Your task to perform on an android device: turn off translation in the chrome app Image 0: 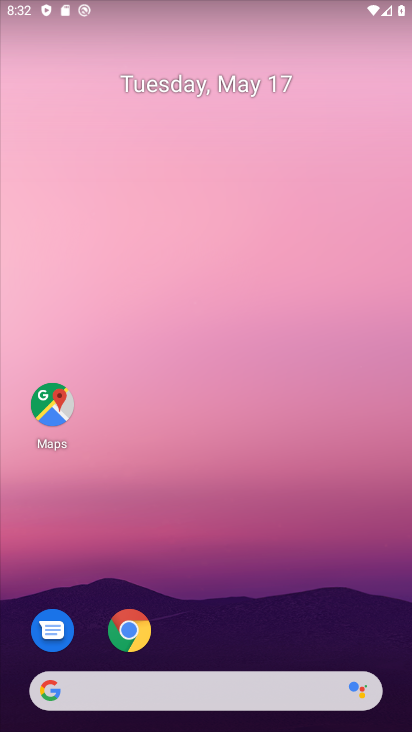
Step 0: click (261, 311)
Your task to perform on an android device: turn off translation in the chrome app Image 1: 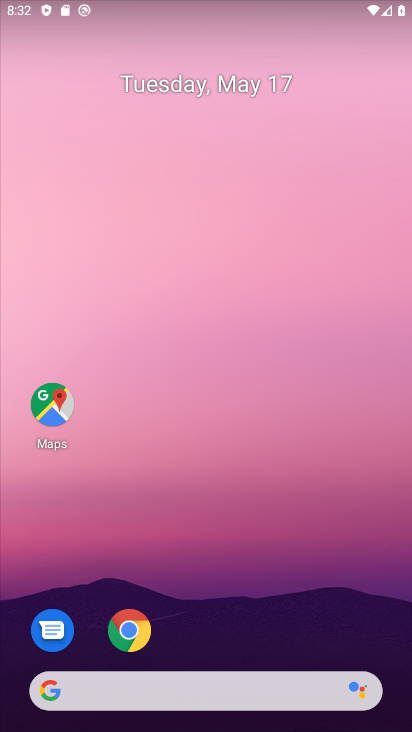
Step 1: drag from (229, 554) to (276, 176)
Your task to perform on an android device: turn off translation in the chrome app Image 2: 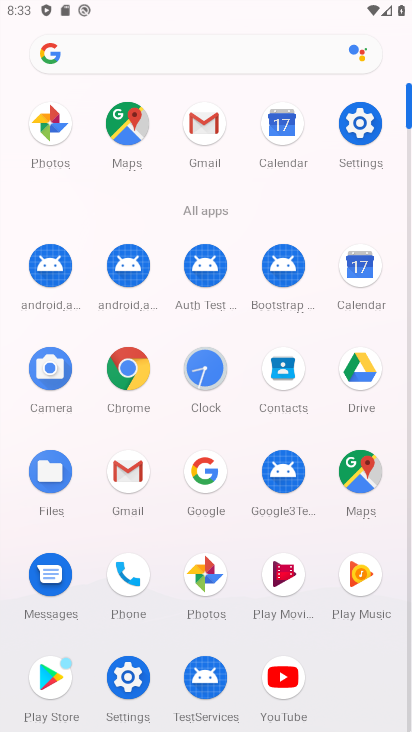
Step 2: click (119, 410)
Your task to perform on an android device: turn off translation in the chrome app Image 3: 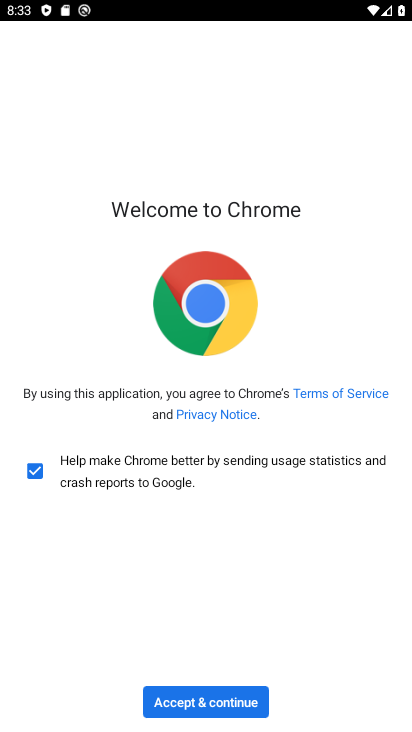
Step 3: click (181, 695)
Your task to perform on an android device: turn off translation in the chrome app Image 4: 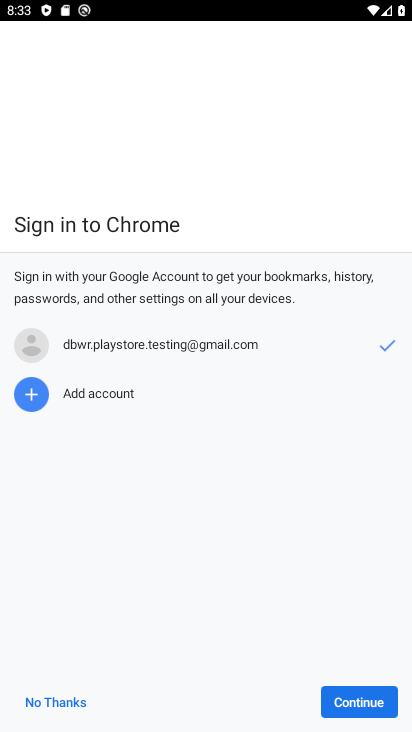
Step 4: click (362, 703)
Your task to perform on an android device: turn off translation in the chrome app Image 5: 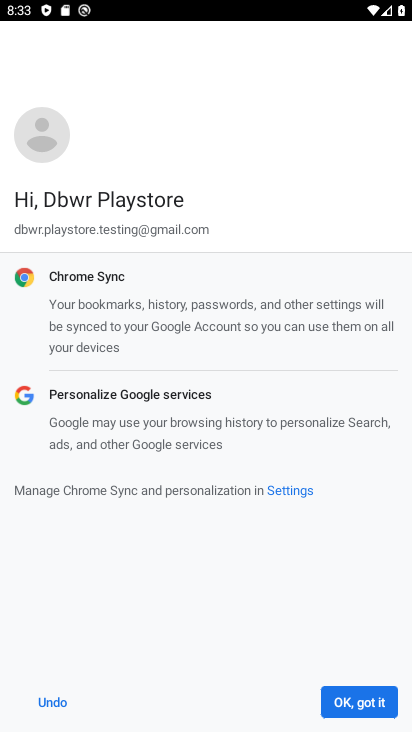
Step 5: click (363, 702)
Your task to perform on an android device: turn off translation in the chrome app Image 6: 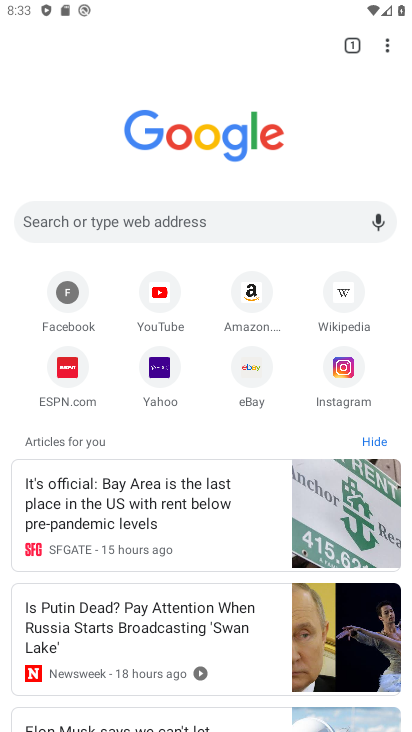
Step 6: click (385, 46)
Your task to perform on an android device: turn off translation in the chrome app Image 7: 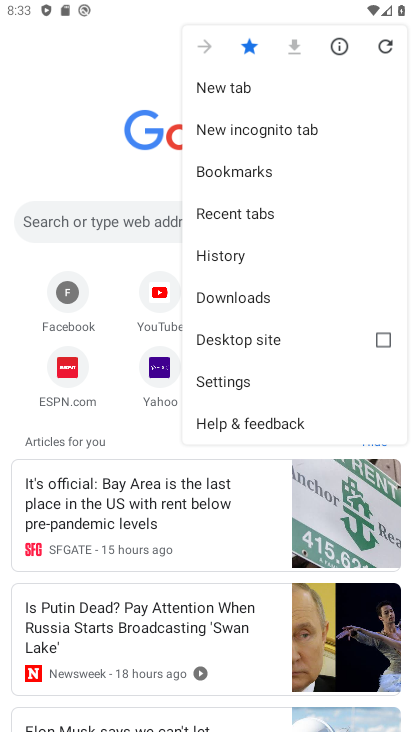
Step 7: click (230, 385)
Your task to perform on an android device: turn off translation in the chrome app Image 8: 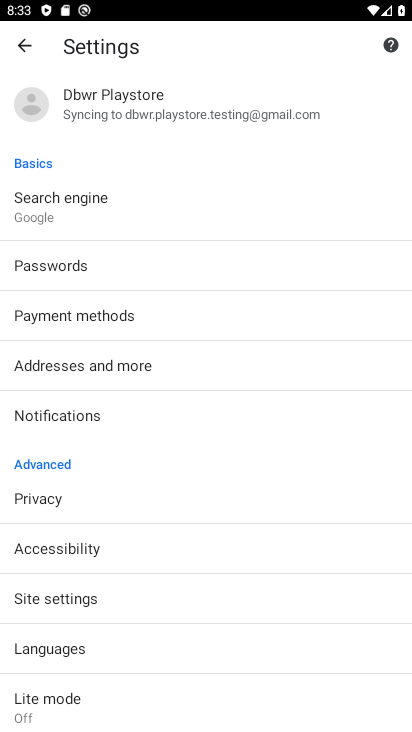
Step 8: click (69, 657)
Your task to perform on an android device: turn off translation in the chrome app Image 9: 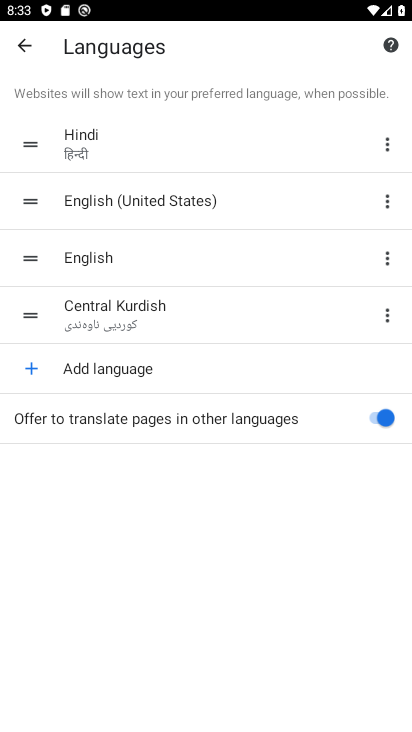
Step 9: click (378, 423)
Your task to perform on an android device: turn off translation in the chrome app Image 10: 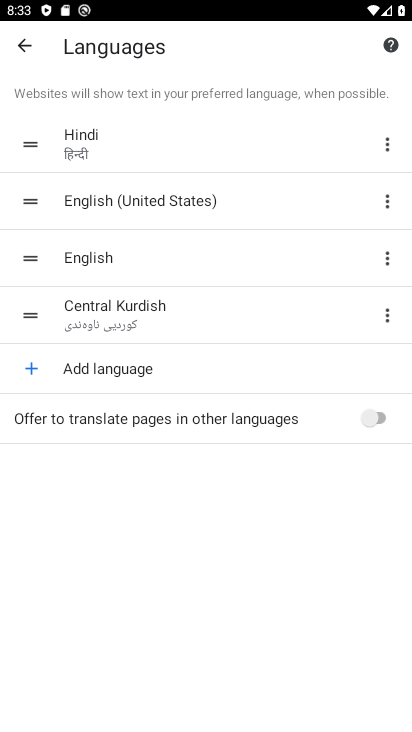
Step 10: task complete